Your task to perform on an android device: toggle translation in the chrome app Image 0: 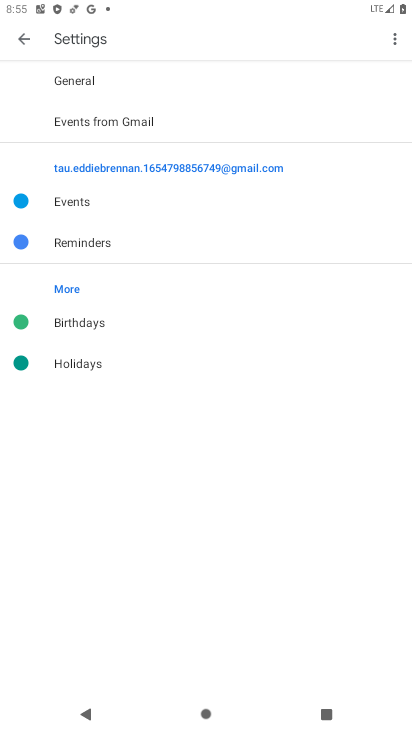
Step 0: press home button
Your task to perform on an android device: toggle translation in the chrome app Image 1: 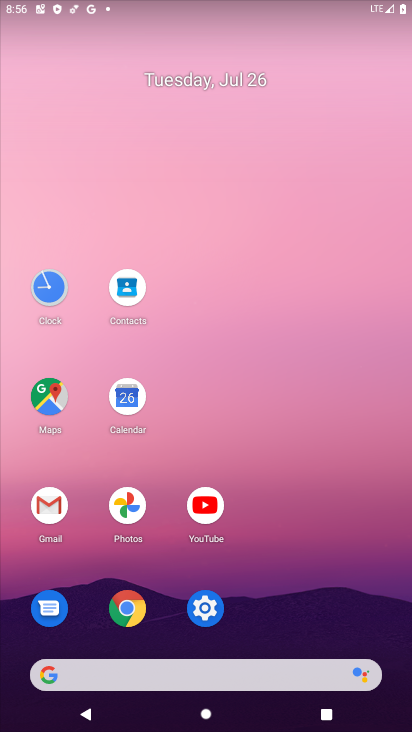
Step 1: click (127, 617)
Your task to perform on an android device: toggle translation in the chrome app Image 2: 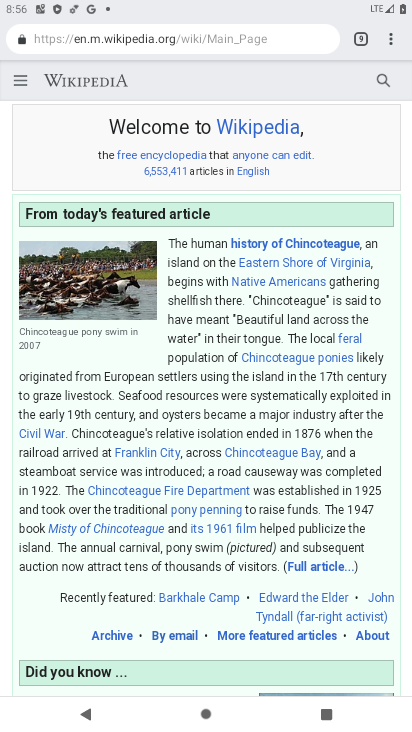
Step 2: click (389, 38)
Your task to perform on an android device: toggle translation in the chrome app Image 3: 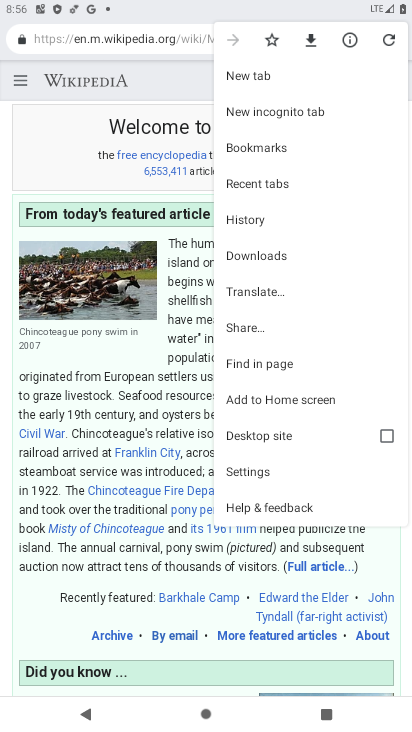
Step 3: click (257, 471)
Your task to perform on an android device: toggle translation in the chrome app Image 4: 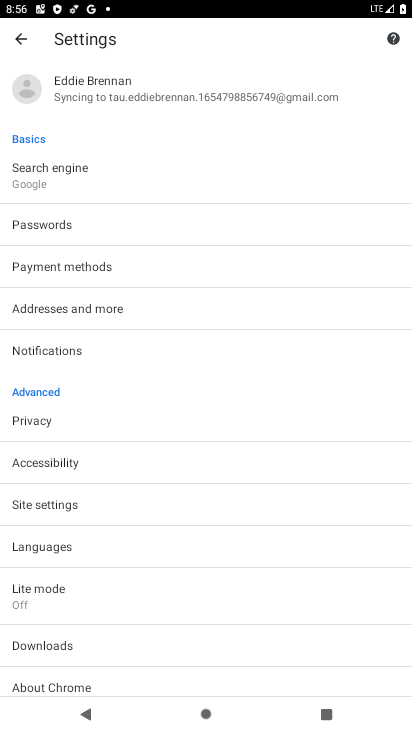
Step 4: click (46, 545)
Your task to perform on an android device: toggle translation in the chrome app Image 5: 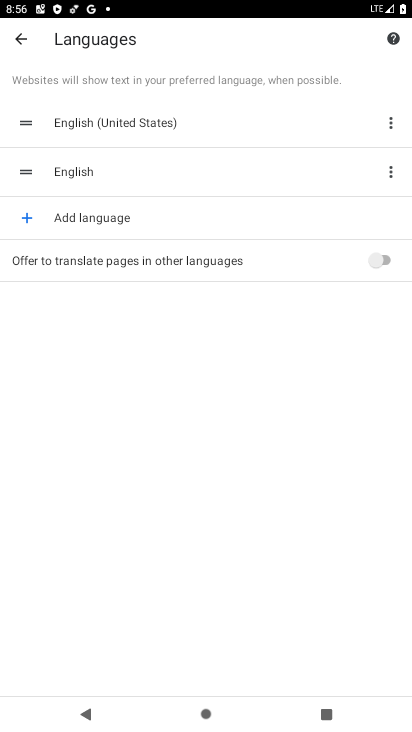
Step 5: click (377, 260)
Your task to perform on an android device: toggle translation in the chrome app Image 6: 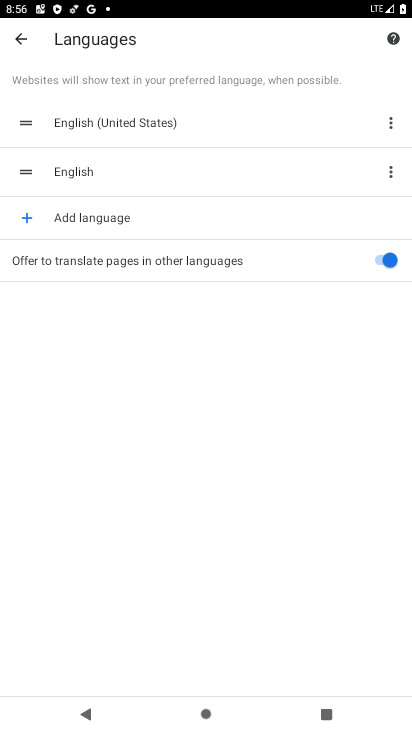
Step 6: task complete